Your task to perform on an android device: open app "Adobe Acrobat Reader: Edit PDF" Image 0: 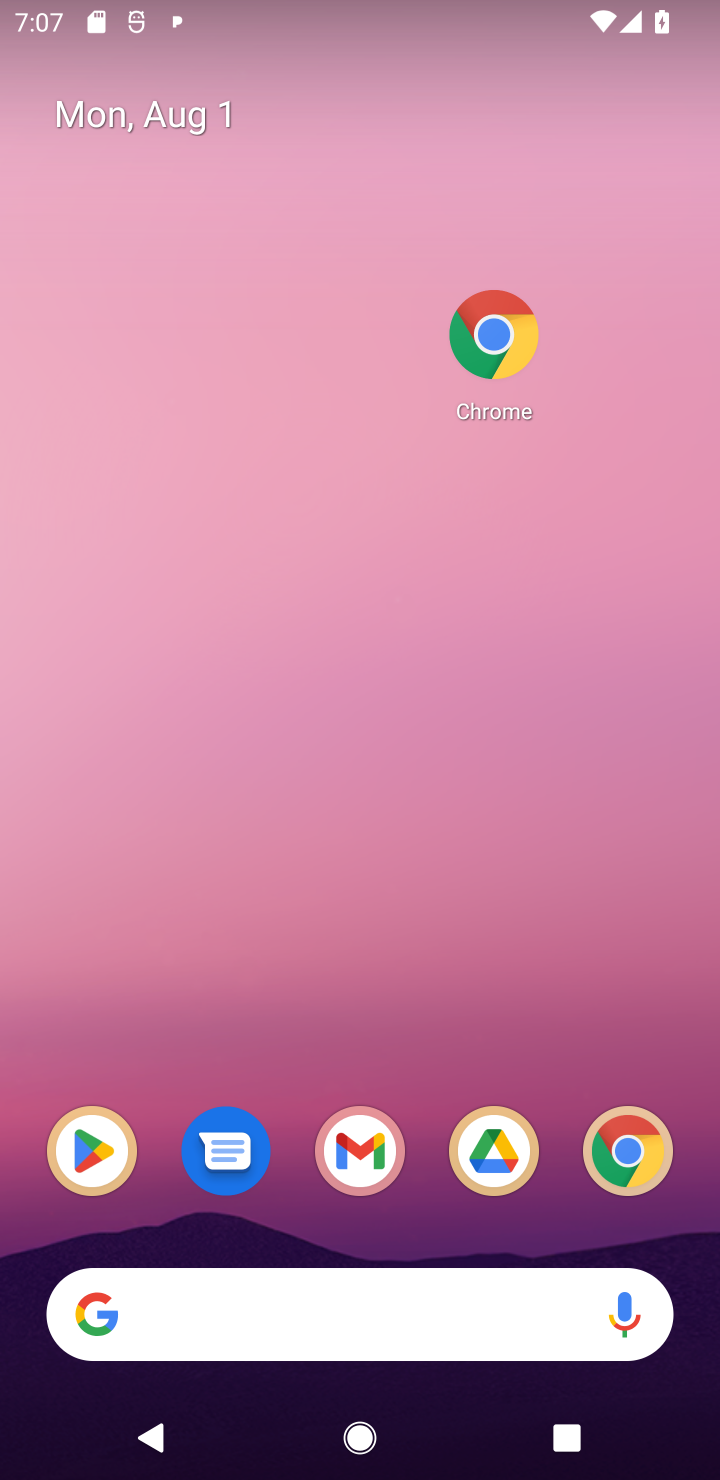
Step 0: click (85, 1169)
Your task to perform on an android device: open app "Adobe Acrobat Reader: Edit PDF" Image 1: 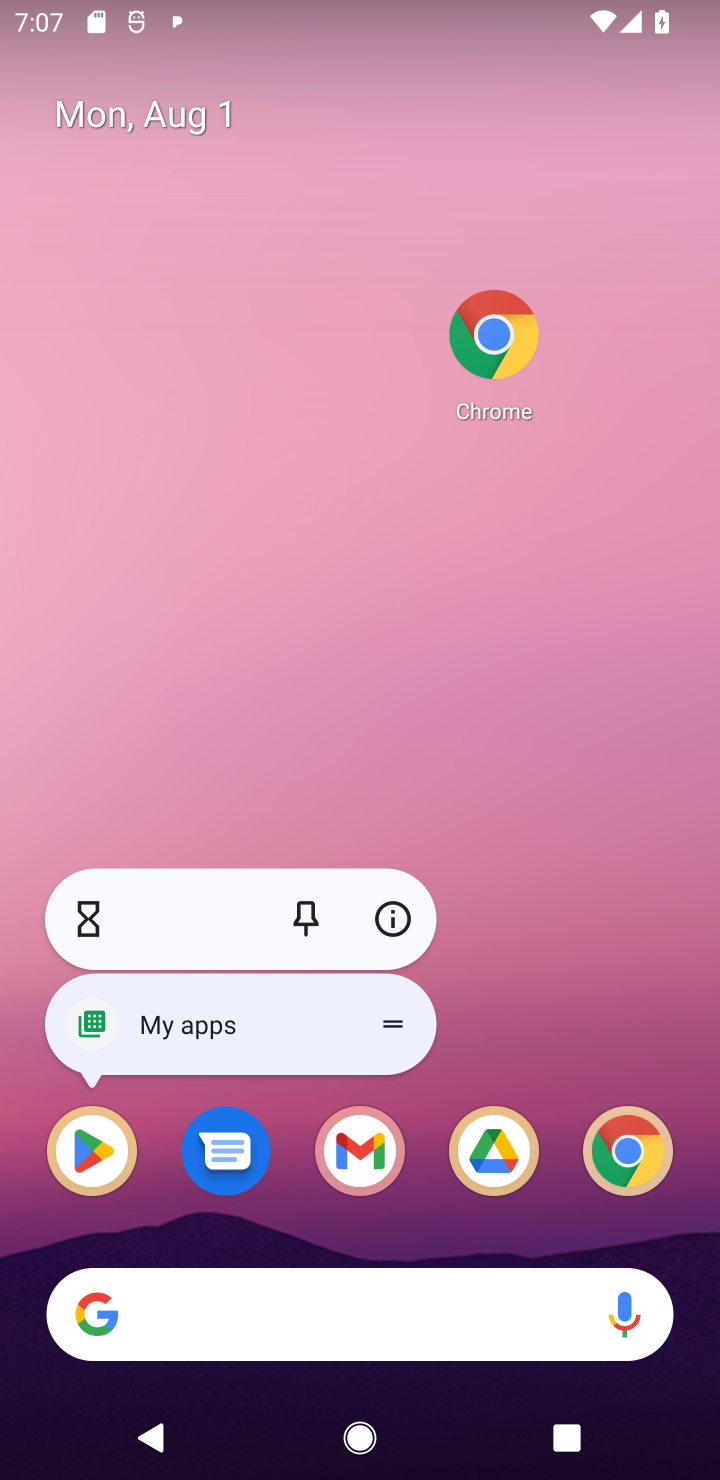
Step 1: click (85, 1169)
Your task to perform on an android device: open app "Adobe Acrobat Reader: Edit PDF" Image 2: 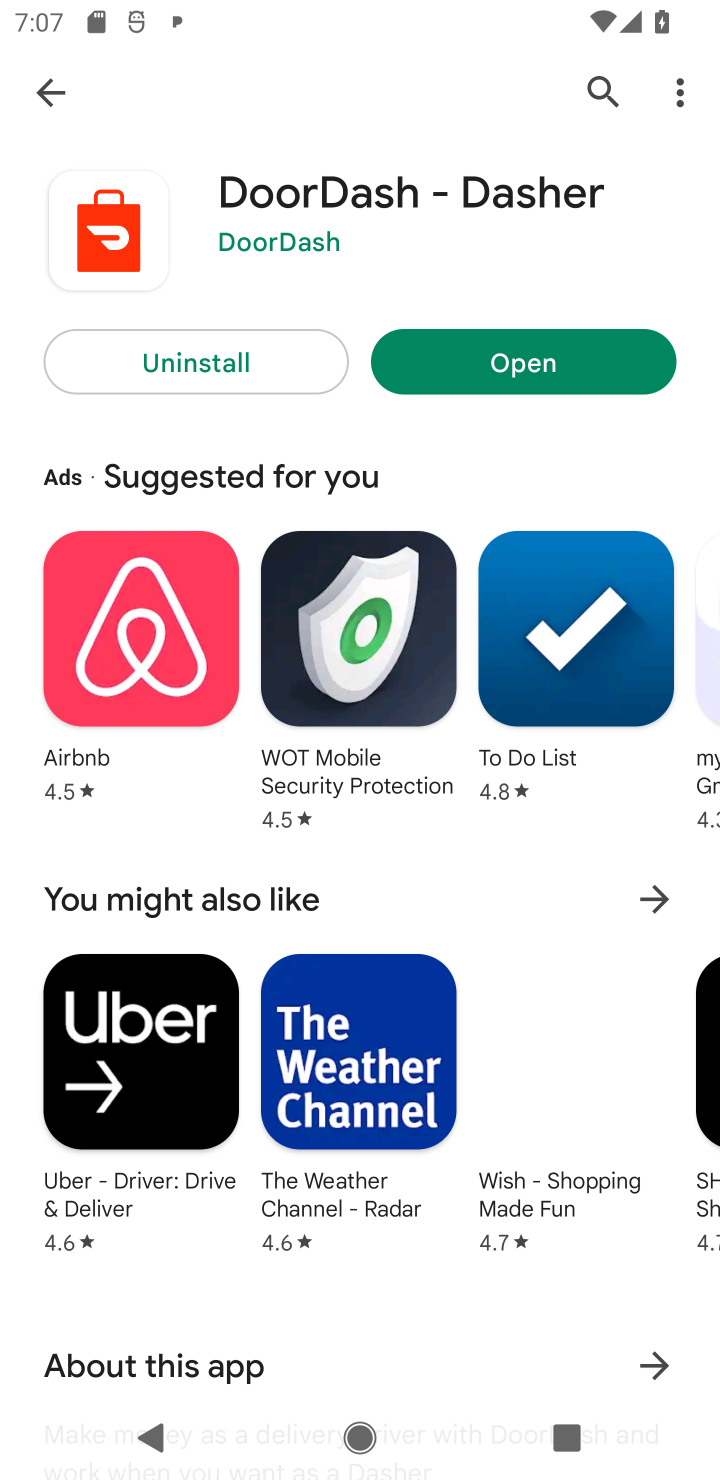
Step 2: click (611, 90)
Your task to perform on an android device: open app "Adobe Acrobat Reader: Edit PDF" Image 3: 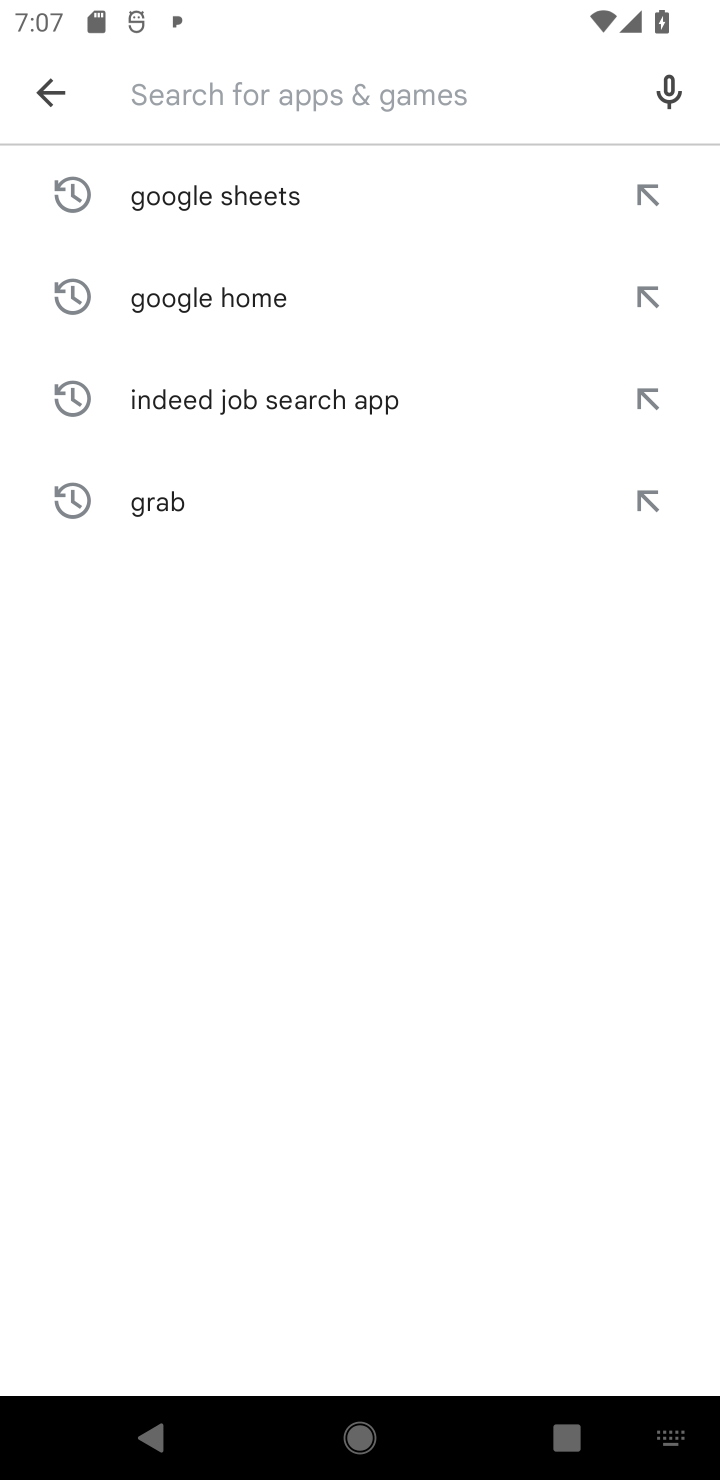
Step 3: type "Adobe Acrobat Reader: Edit PDF"
Your task to perform on an android device: open app "Adobe Acrobat Reader: Edit PDF" Image 4: 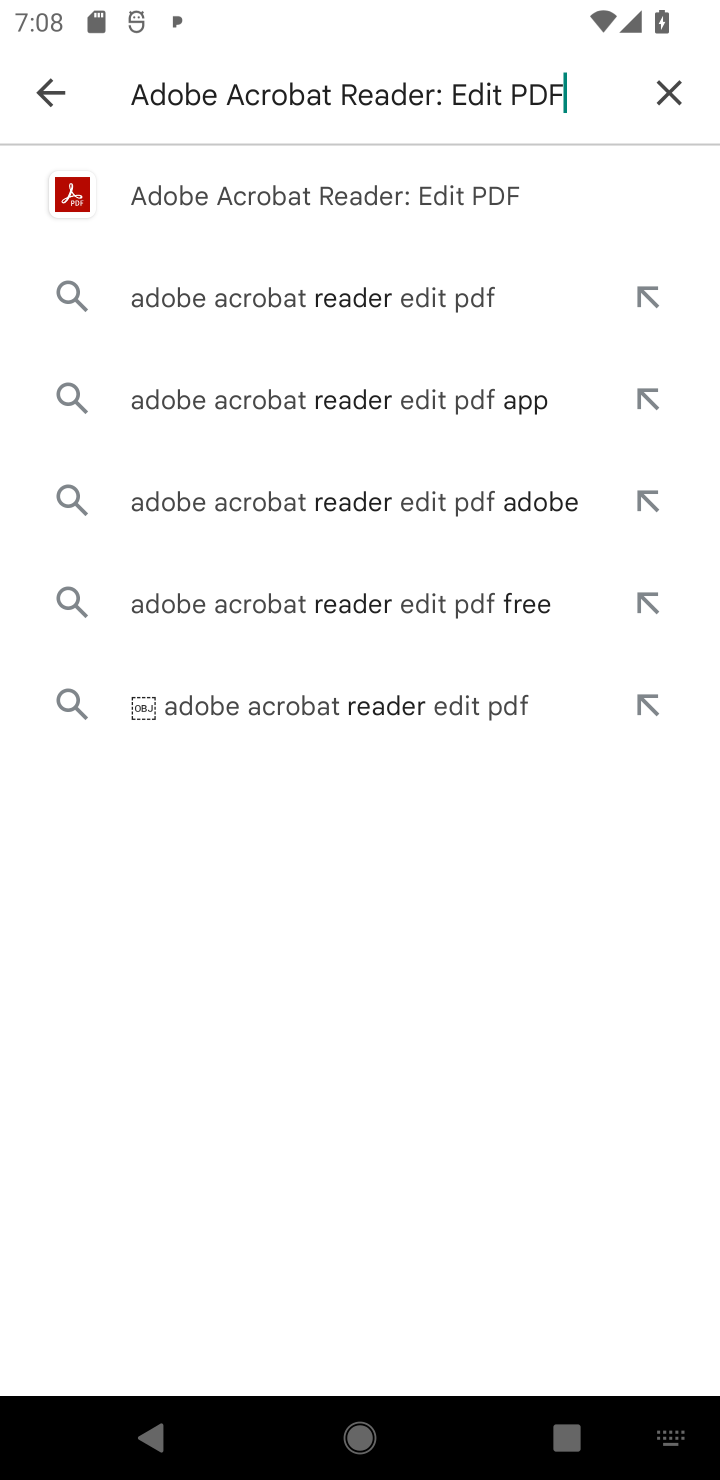
Step 4: click (304, 203)
Your task to perform on an android device: open app "Adobe Acrobat Reader: Edit PDF" Image 5: 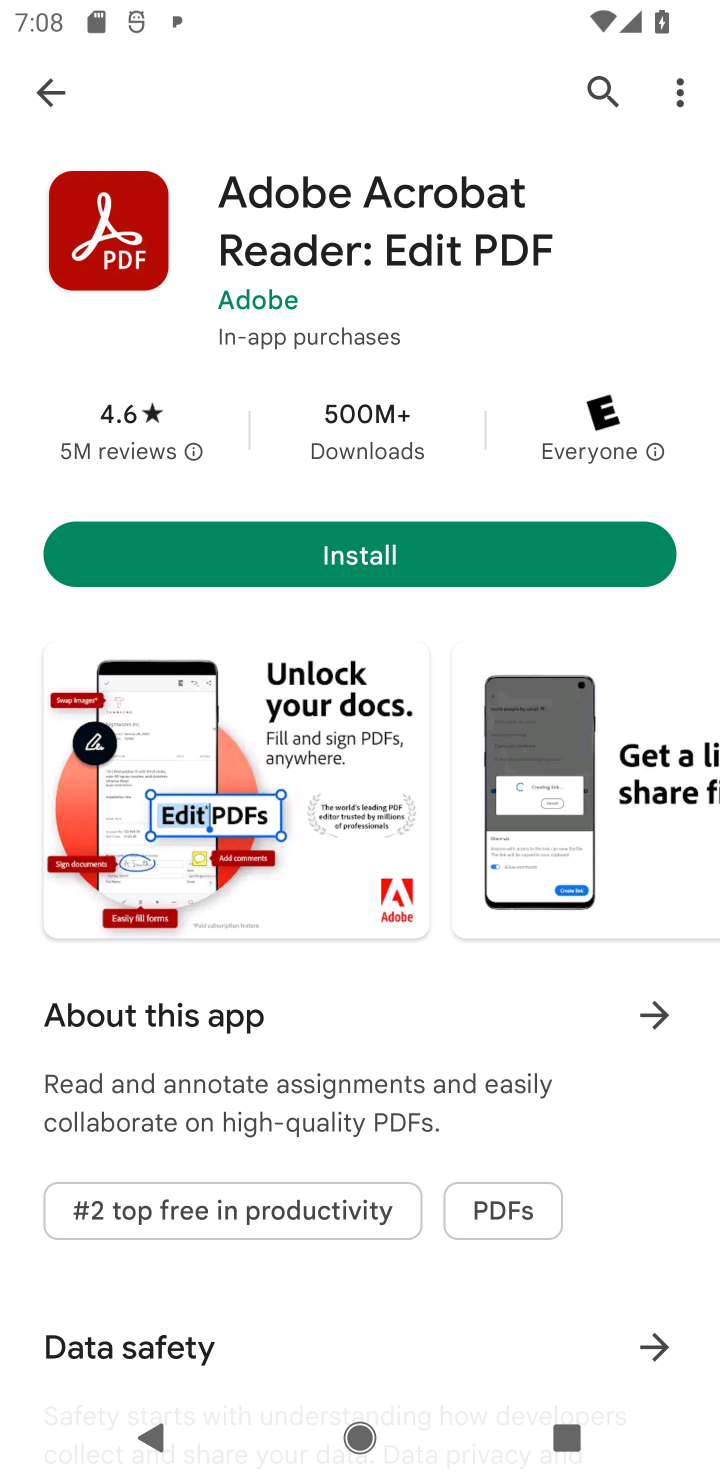
Step 5: task complete